Your task to perform on an android device: Open calendar and show me the fourth week of next month Image 0: 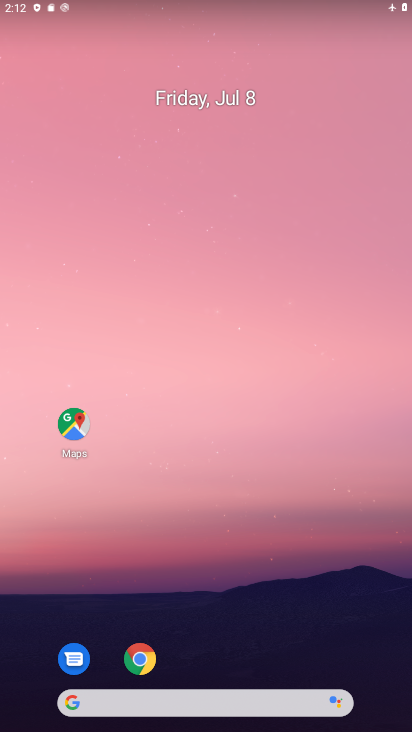
Step 0: drag from (185, 649) to (251, 46)
Your task to perform on an android device: Open calendar and show me the fourth week of next month Image 1: 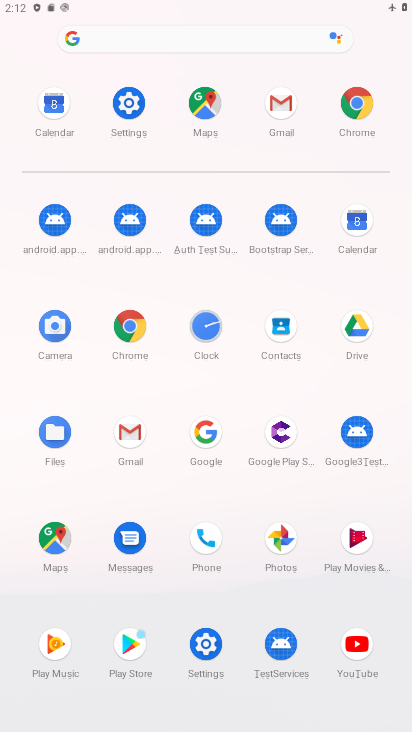
Step 1: click (351, 240)
Your task to perform on an android device: Open calendar and show me the fourth week of next month Image 2: 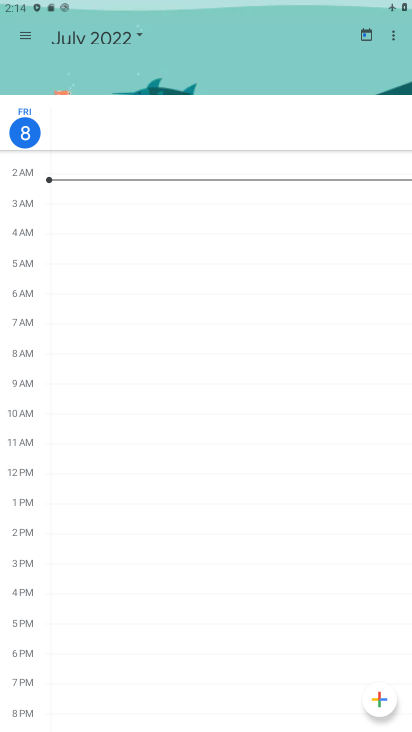
Step 2: drag from (215, 266) to (281, 156)
Your task to perform on an android device: Open calendar and show me the fourth week of next month Image 3: 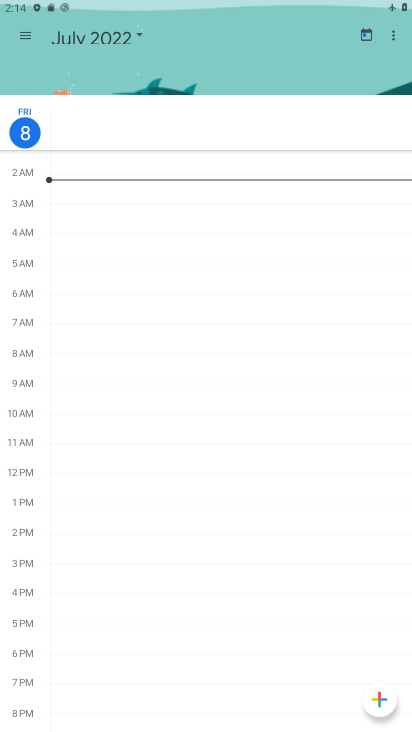
Step 3: click (130, 38)
Your task to perform on an android device: Open calendar and show me the fourth week of next month Image 4: 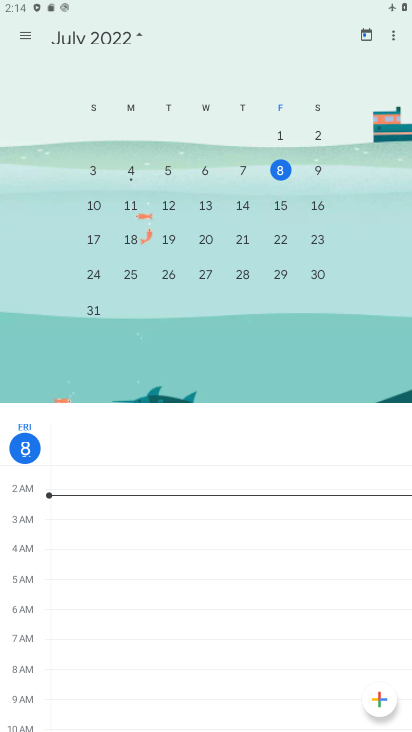
Step 4: click (95, 276)
Your task to perform on an android device: Open calendar and show me the fourth week of next month Image 5: 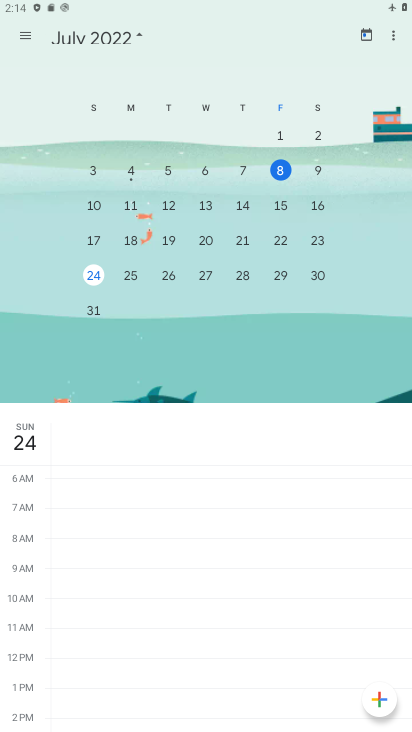
Step 5: click (25, 40)
Your task to perform on an android device: Open calendar and show me the fourth week of next month Image 6: 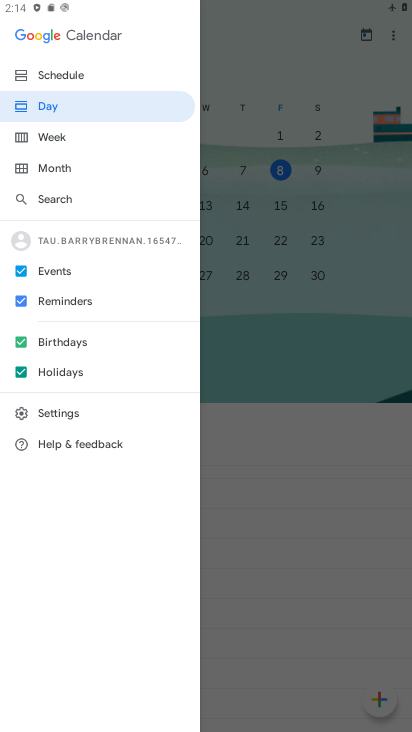
Step 6: click (69, 135)
Your task to perform on an android device: Open calendar and show me the fourth week of next month Image 7: 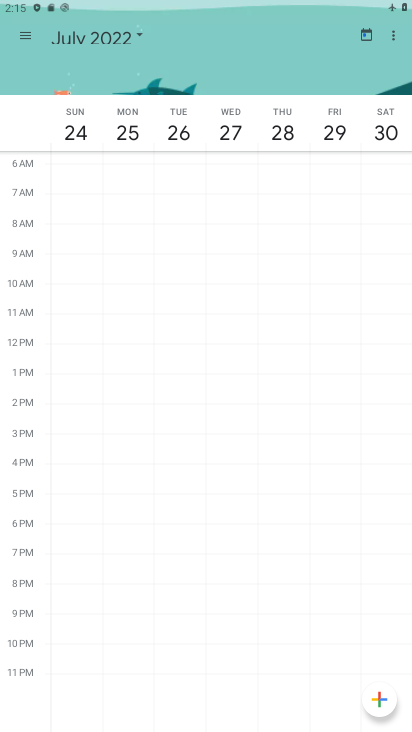
Step 7: task complete